Your task to perform on an android device: create a new album in the google photos Image 0: 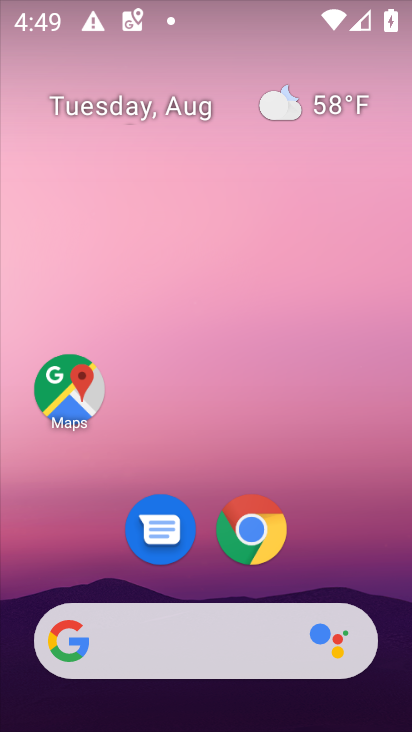
Step 0: drag from (206, 468) to (206, 123)
Your task to perform on an android device: create a new album in the google photos Image 1: 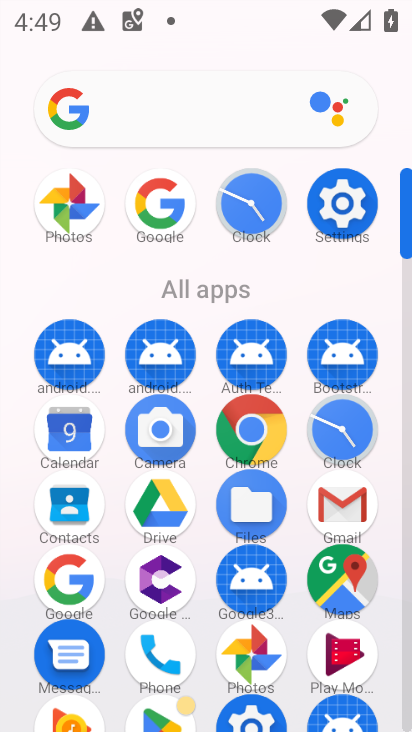
Step 1: click (86, 210)
Your task to perform on an android device: create a new album in the google photos Image 2: 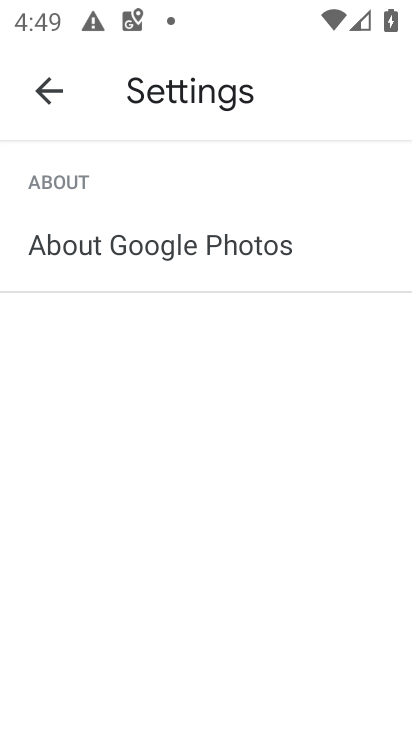
Step 2: click (39, 97)
Your task to perform on an android device: create a new album in the google photos Image 3: 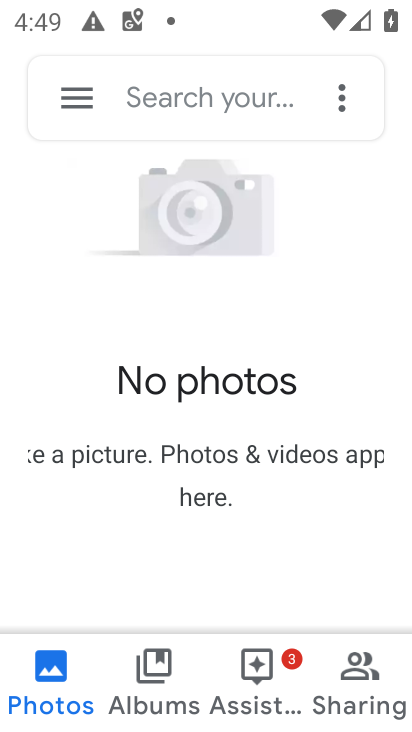
Step 3: click (339, 106)
Your task to perform on an android device: create a new album in the google photos Image 4: 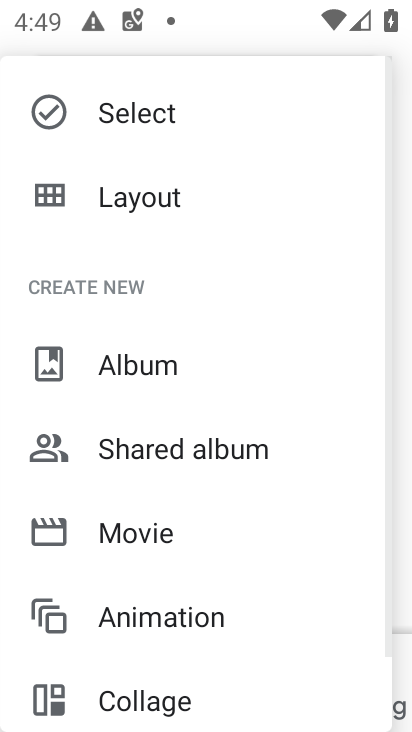
Step 4: click (147, 366)
Your task to perform on an android device: create a new album in the google photos Image 5: 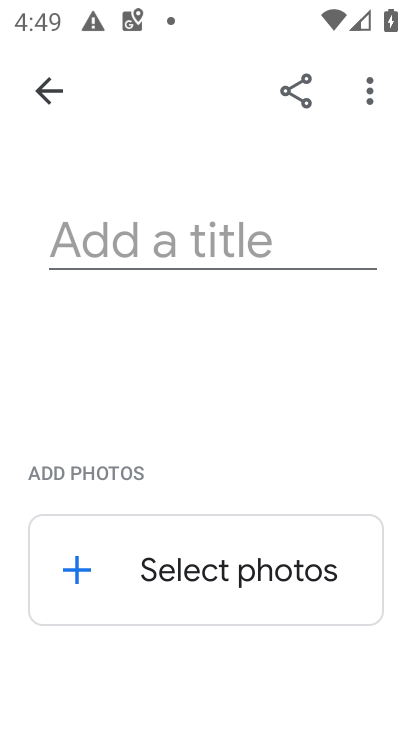
Step 5: click (221, 241)
Your task to perform on an android device: create a new album in the google photos Image 6: 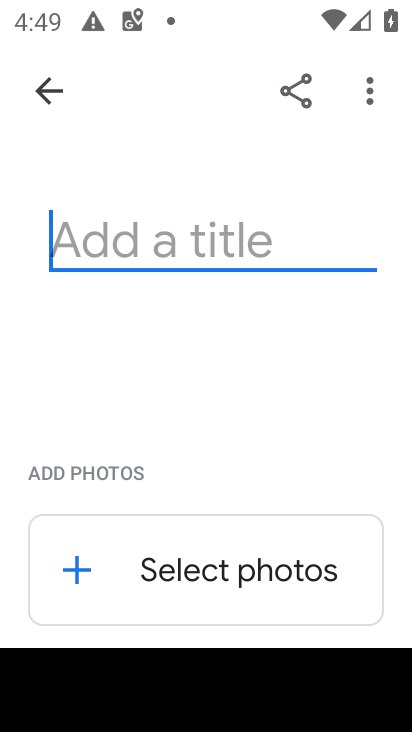
Step 6: type "rgdg"
Your task to perform on an android device: create a new album in the google photos Image 7: 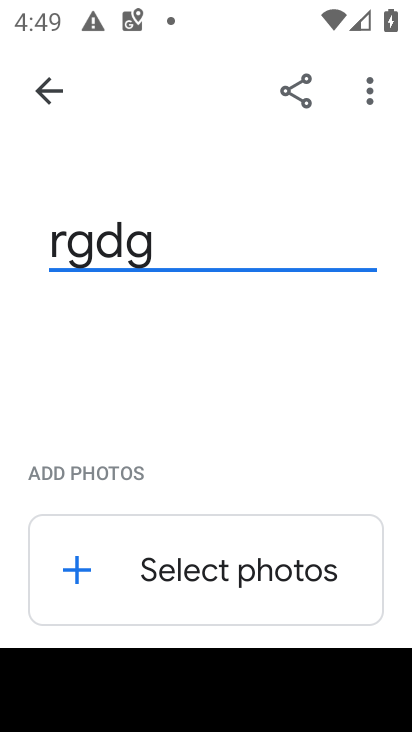
Step 7: click (158, 565)
Your task to perform on an android device: create a new album in the google photos Image 8: 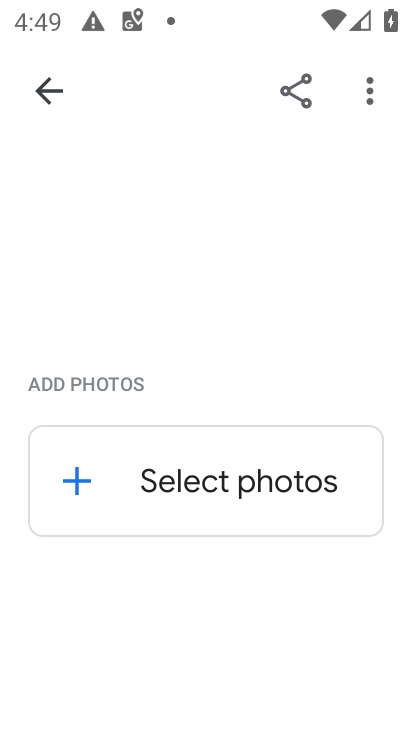
Step 8: click (93, 475)
Your task to perform on an android device: create a new album in the google photos Image 9: 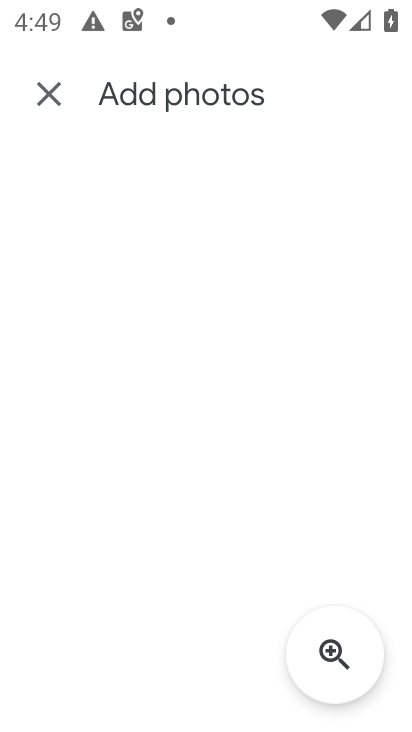
Step 9: click (37, 109)
Your task to perform on an android device: create a new album in the google photos Image 10: 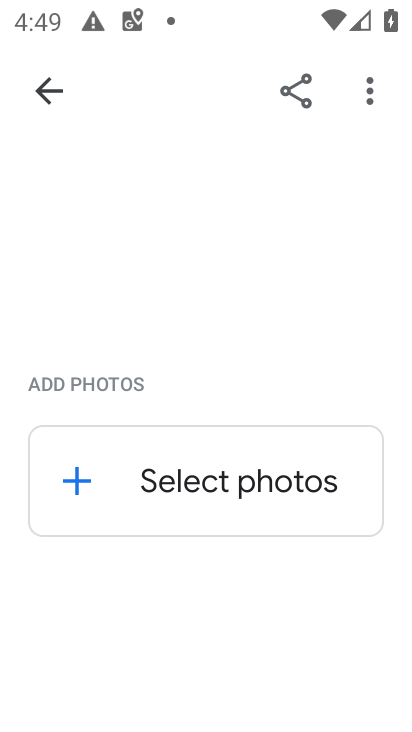
Step 10: task complete